Your task to perform on an android device: toggle wifi Image 0: 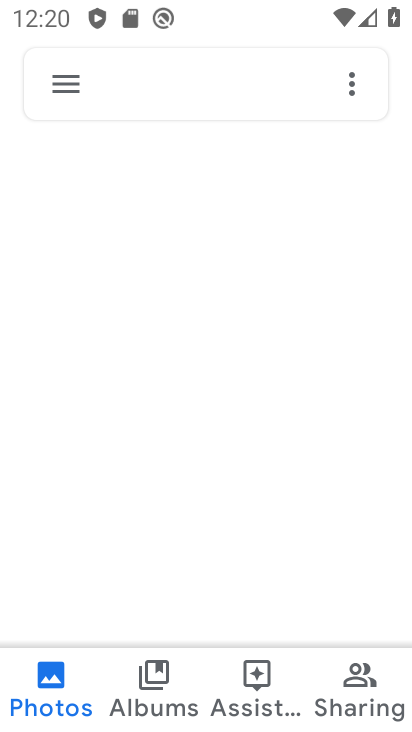
Step 0: drag from (207, 586) to (271, 126)
Your task to perform on an android device: toggle wifi Image 1: 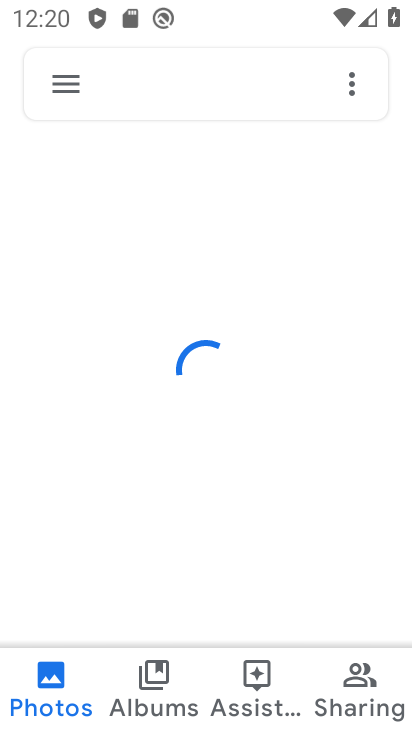
Step 1: press back button
Your task to perform on an android device: toggle wifi Image 2: 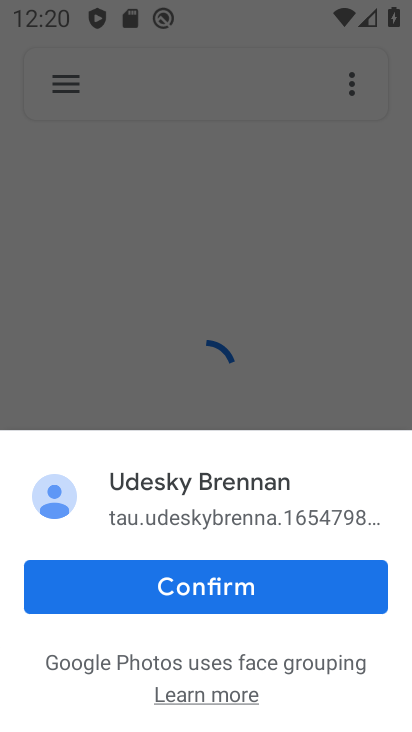
Step 2: press back button
Your task to perform on an android device: toggle wifi Image 3: 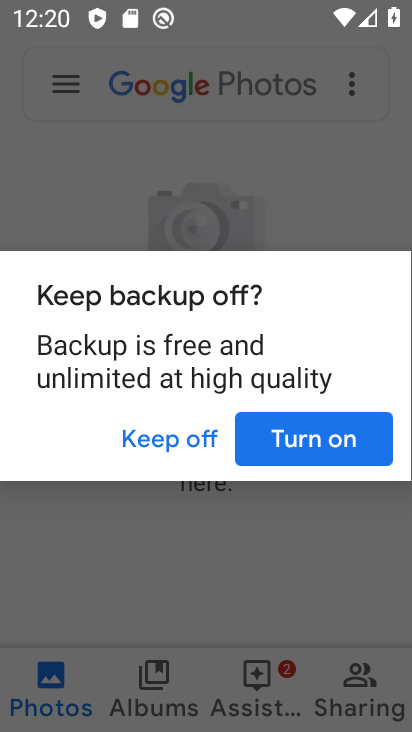
Step 3: press home button
Your task to perform on an android device: toggle wifi Image 4: 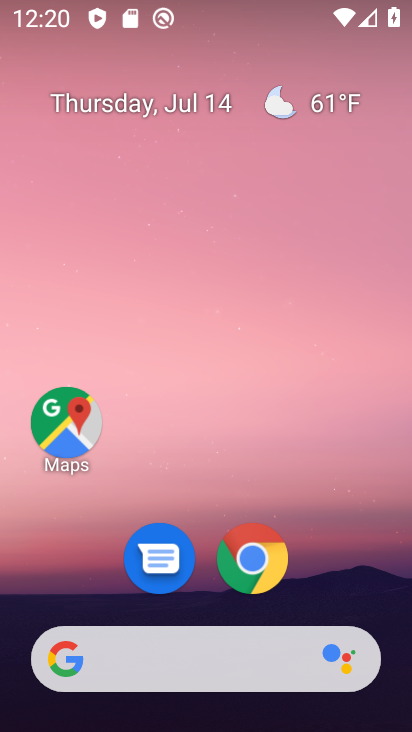
Step 4: drag from (72, 10) to (151, 582)
Your task to perform on an android device: toggle wifi Image 5: 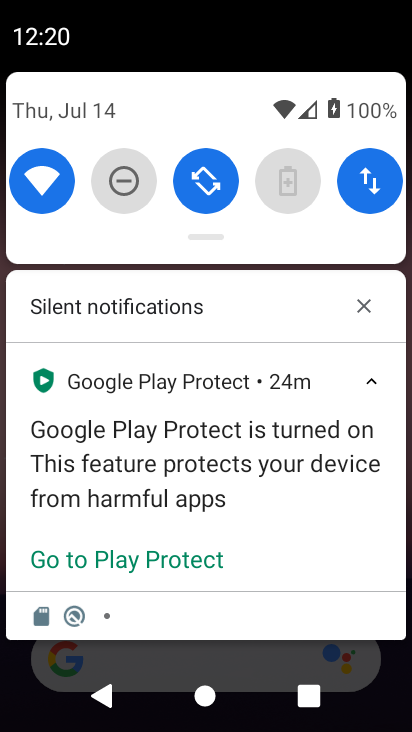
Step 5: click (51, 183)
Your task to perform on an android device: toggle wifi Image 6: 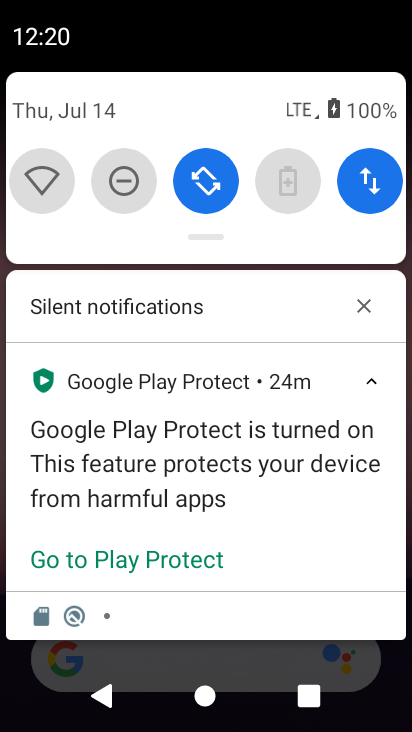
Step 6: task complete